Your task to perform on an android device: star an email in the gmail app Image 0: 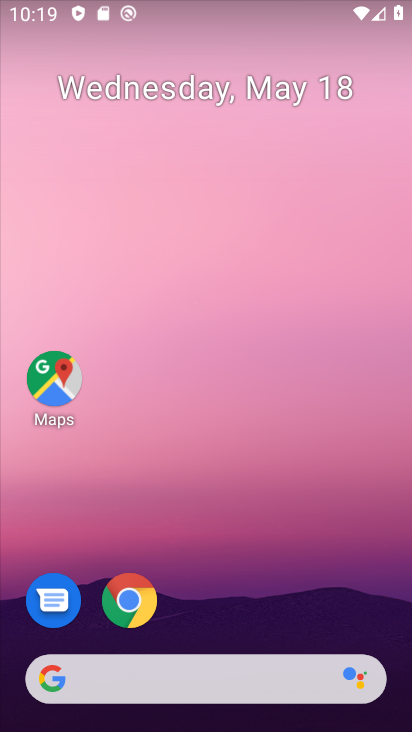
Step 0: drag from (303, 625) to (295, 31)
Your task to perform on an android device: star an email in the gmail app Image 1: 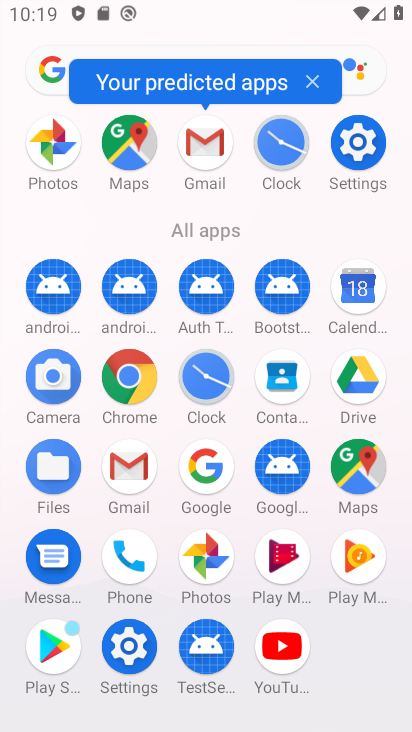
Step 1: click (147, 458)
Your task to perform on an android device: star an email in the gmail app Image 2: 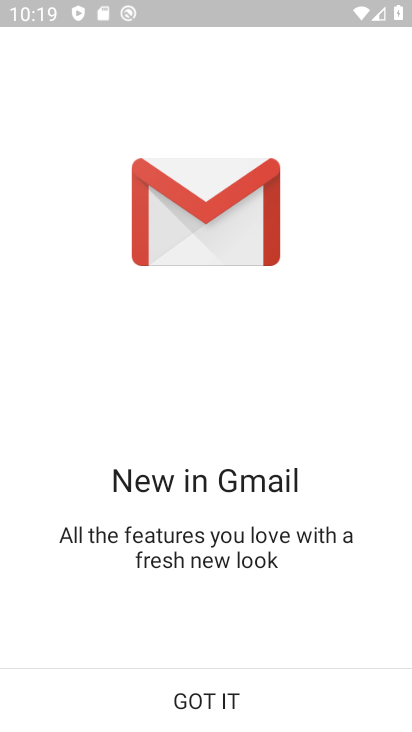
Step 2: click (215, 685)
Your task to perform on an android device: star an email in the gmail app Image 3: 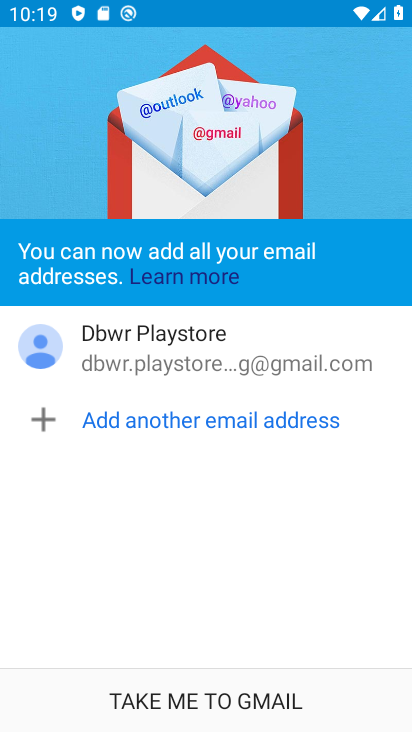
Step 3: click (214, 690)
Your task to perform on an android device: star an email in the gmail app Image 4: 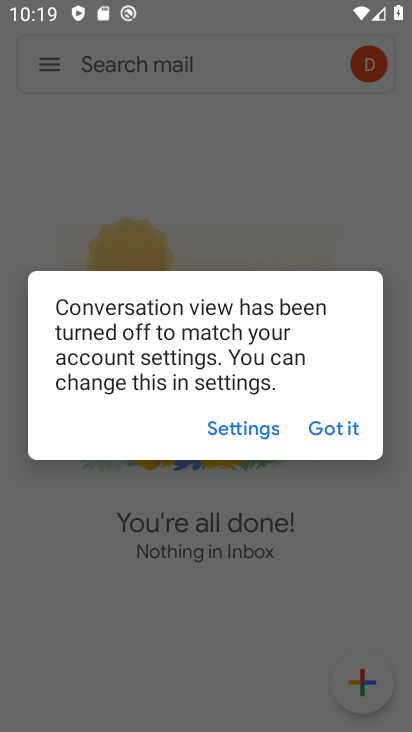
Step 4: click (338, 438)
Your task to perform on an android device: star an email in the gmail app Image 5: 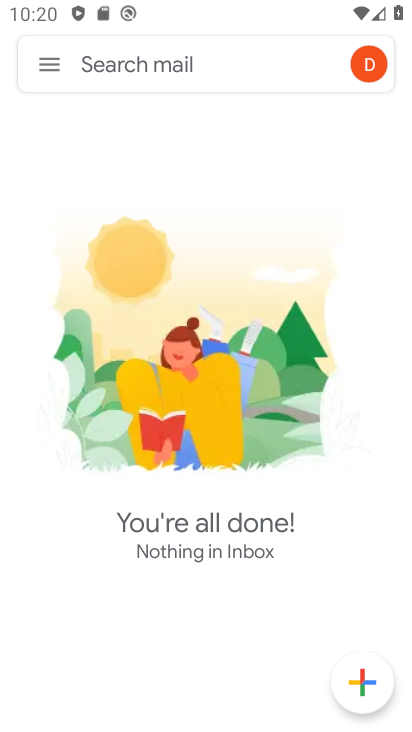
Step 5: click (53, 61)
Your task to perform on an android device: star an email in the gmail app Image 6: 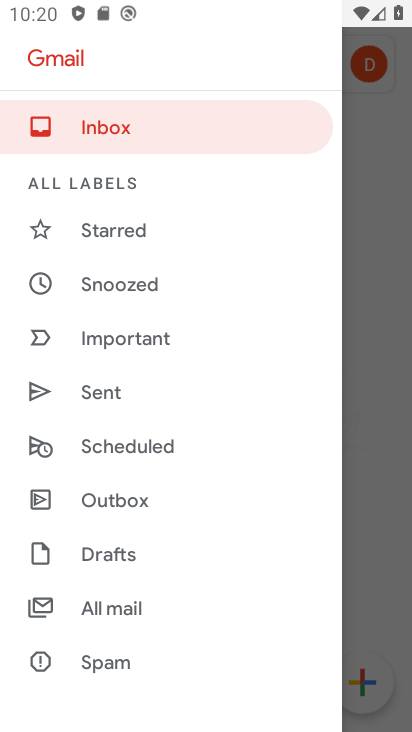
Step 6: click (140, 613)
Your task to perform on an android device: star an email in the gmail app Image 7: 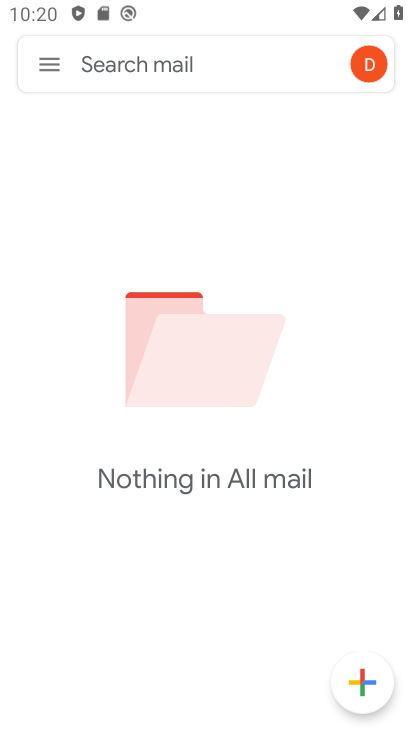
Step 7: task complete